Your task to perform on an android device: find which apps use the phone's location Image 0: 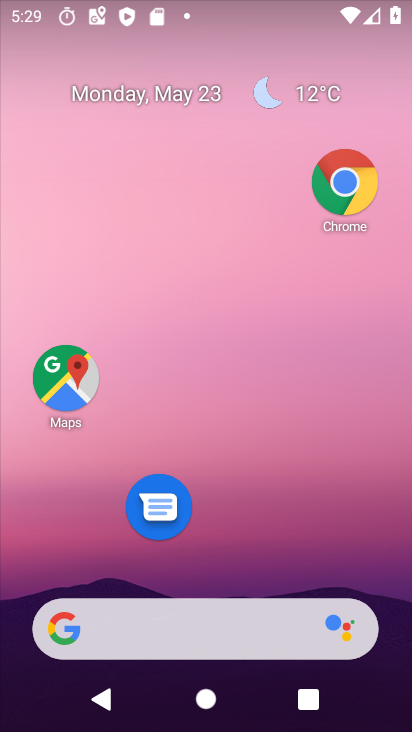
Step 0: drag from (169, 571) to (167, 203)
Your task to perform on an android device: find which apps use the phone's location Image 1: 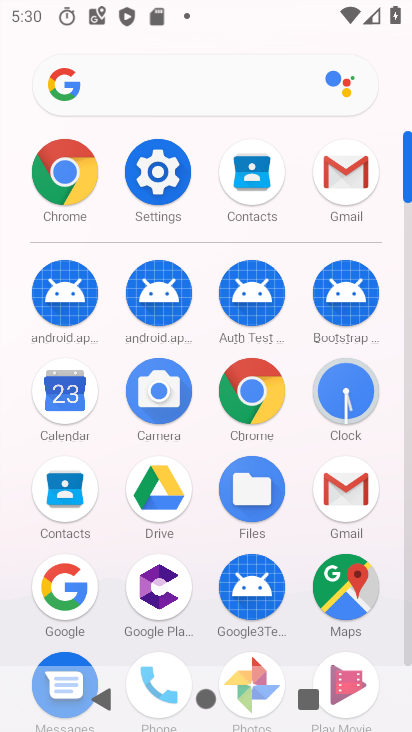
Step 1: click (131, 173)
Your task to perform on an android device: find which apps use the phone's location Image 2: 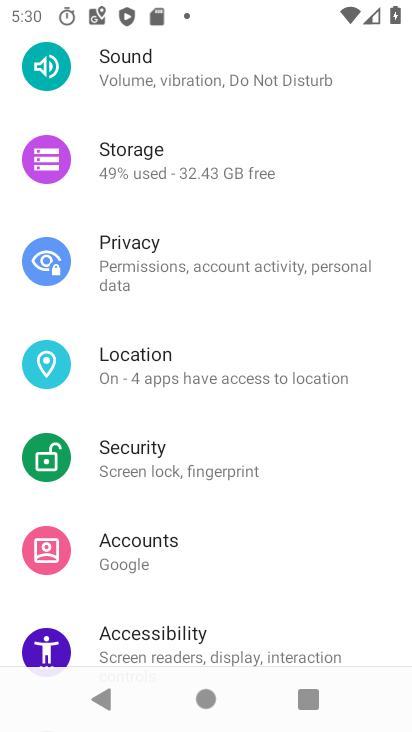
Step 2: click (154, 369)
Your task to perform on an android device: find which apps use the phone's location Image 3: 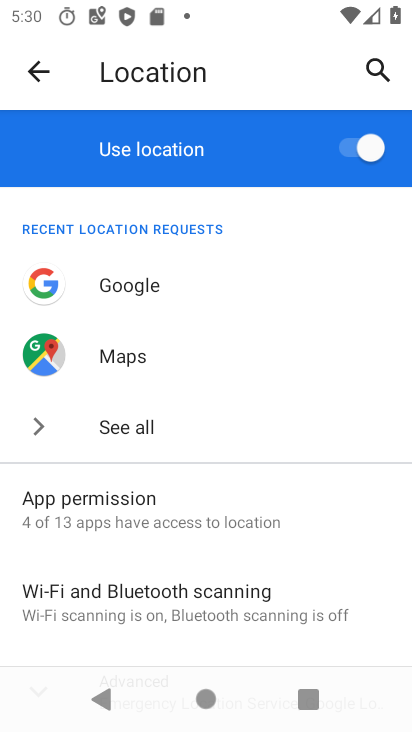
Step 3: click (113, 424)
Your task to perform on an android device: find which apps use the phone's location Image 4: 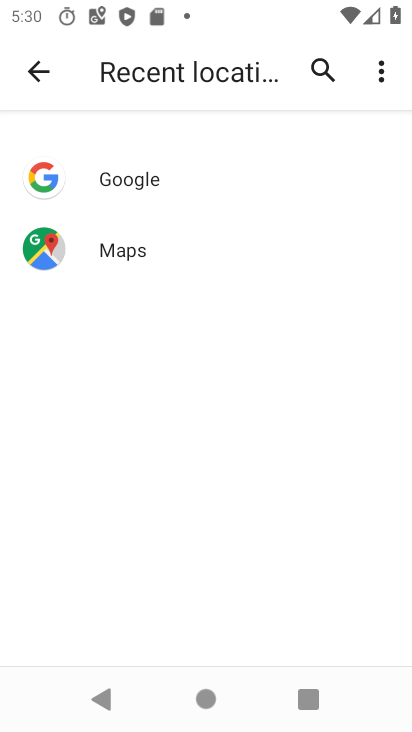
Step 4: task complete